Your task to perform on an android device: Open Yahoo.com Image 0: 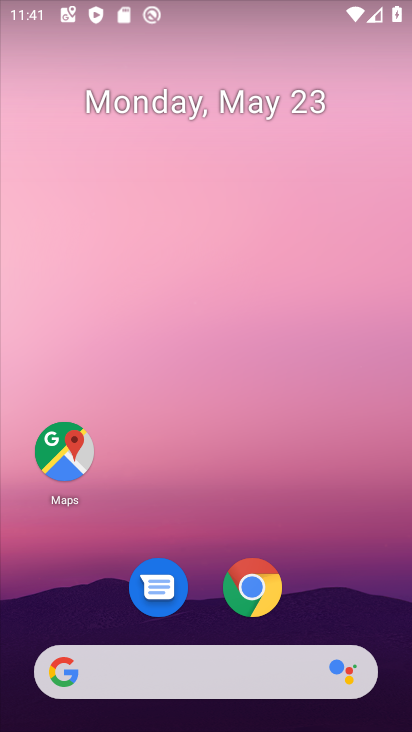
Step 0: click (274, 591)
Your task to perform on an android device: Open Yahoo.com Image 1: 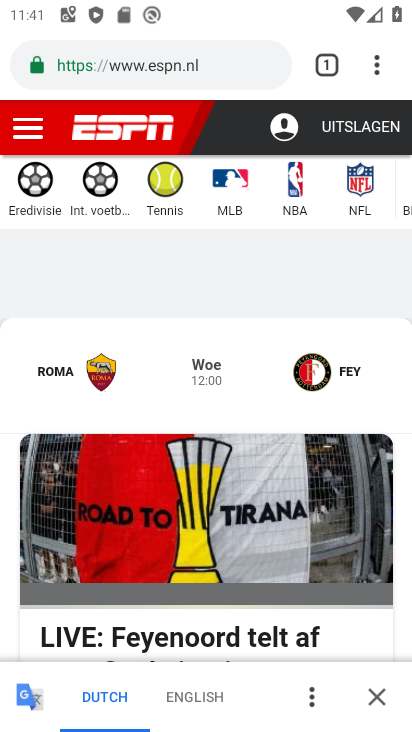
Step 1: click (122, 62)
Your task to perform on an android device: Open Yahoo.com Image 2: 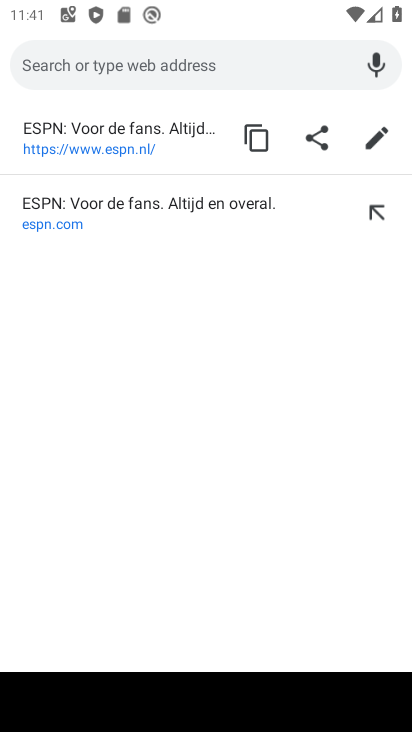
Step 2: type "yahoo.com"
Your task to perform on an android device: Open Yahoo.com Image 3: 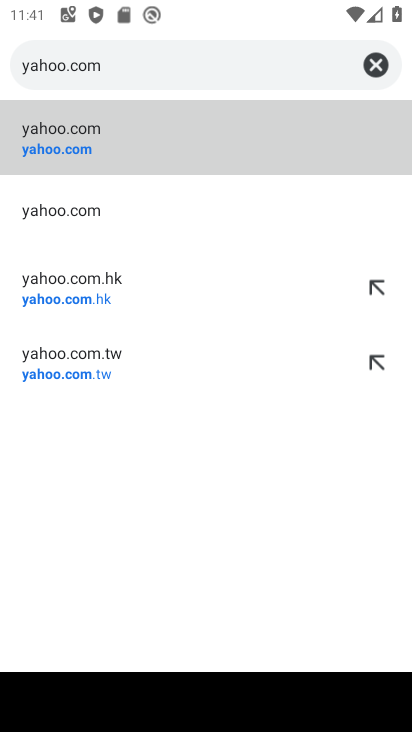
Step 3: click (45, 148)
Your task to perform on an android device: Open Yahoo.com Image 4: 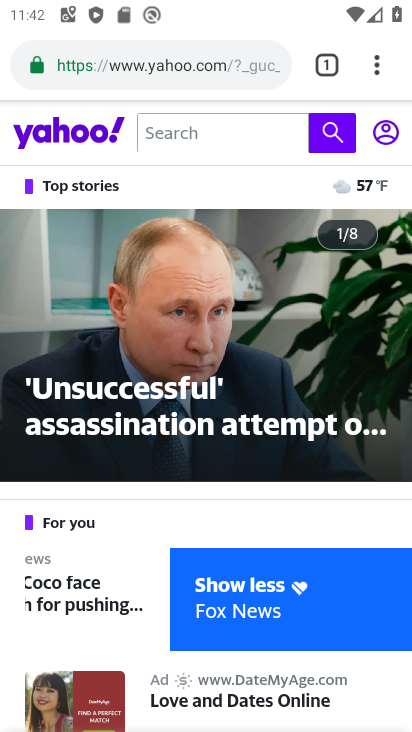
Step 4: task complete